Your task to perform on an android device: find photos in the google photos app Image 0: 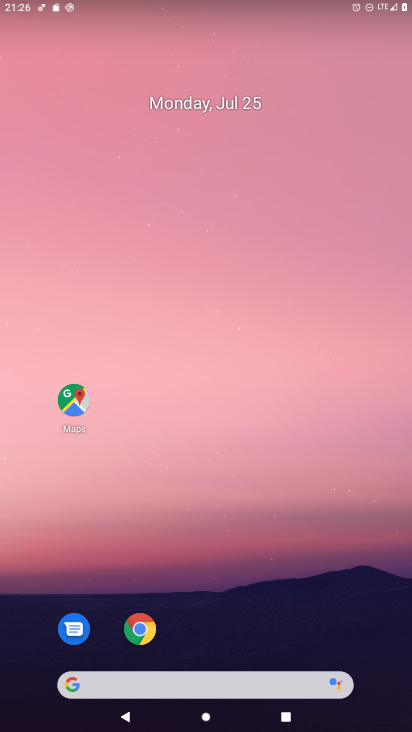
Step 0: drag from (201, 680) to (195, 55)
Your task to perform on an android device: find photos in the google photos app Image 1: 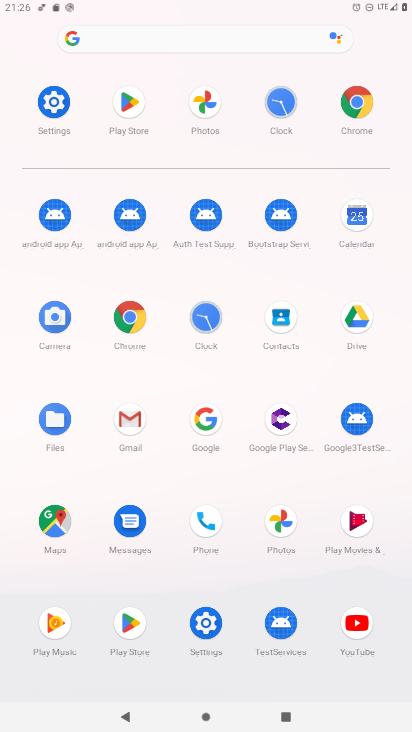
Step 1: click (204, 103)
Your task to perform on an android device: find photos in the google photos app Image 2: 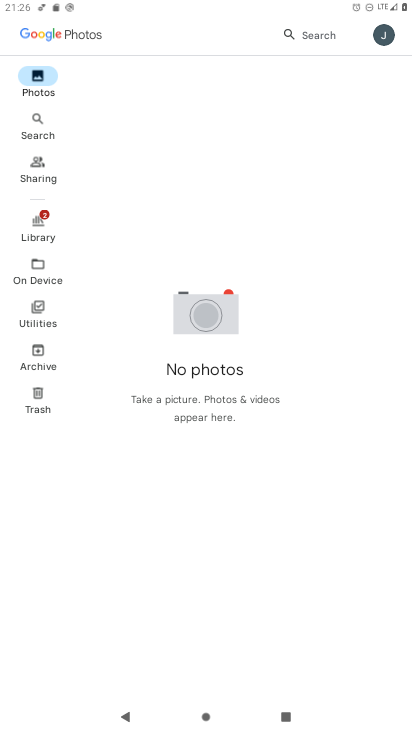
Step 2: click (33, 115)
Your task to perform on an android device: find photos in the google photos app Image 3: 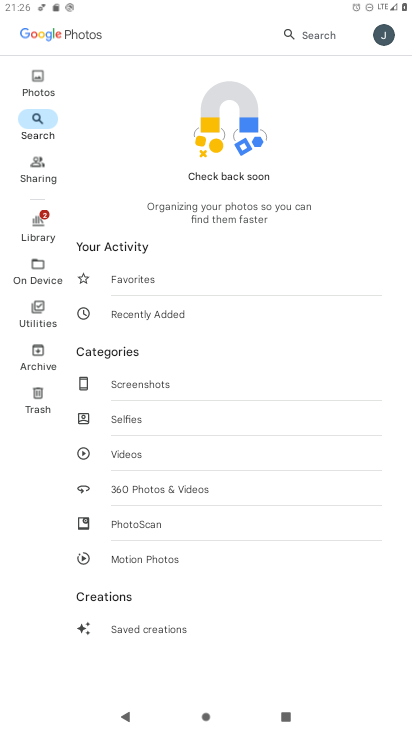
Step 3: click (42, 181)
Your task to perform on an android device: find photos in the google photos app Image 4: 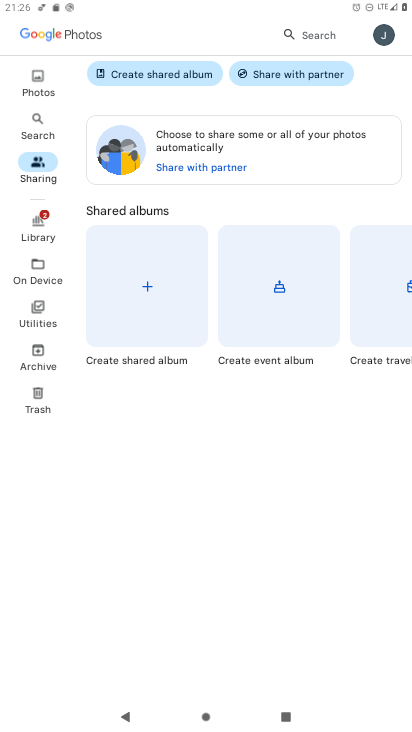
Step 4: click (48, 219)
Your task to perform on an android device: find photos in the google photos app Image 5: 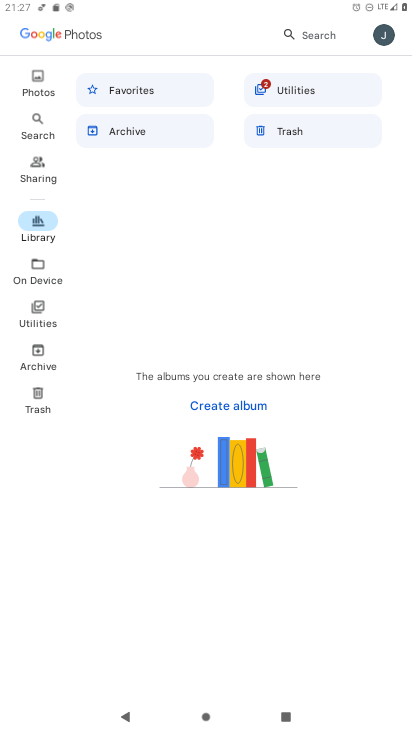
Step 5: click (121, 85)
Your task to perform on an android device: find photos in the google photos app Image 6: 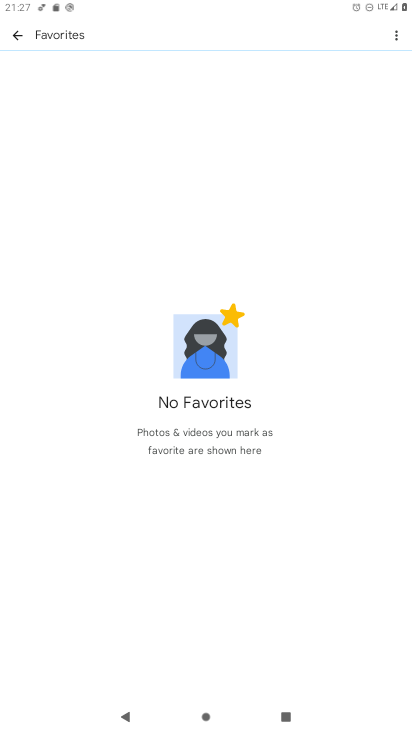
Step 6: task complete